Your task to perform on an android device: Go to Reddit.com Image 0: 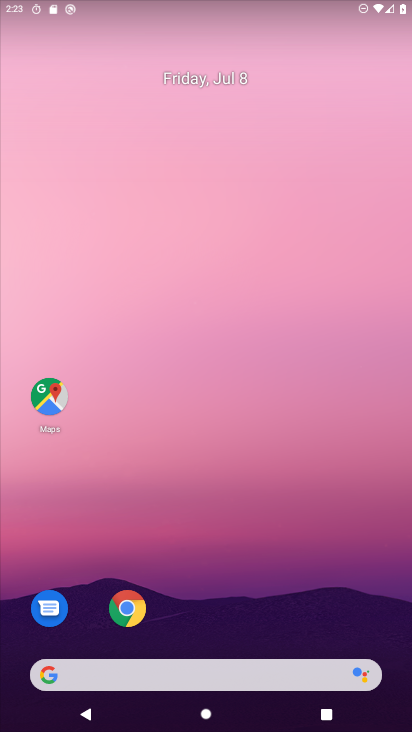
Step 0: click (129, 610)
Your task to perform on an android device: Go to Reddit.com Image 1: 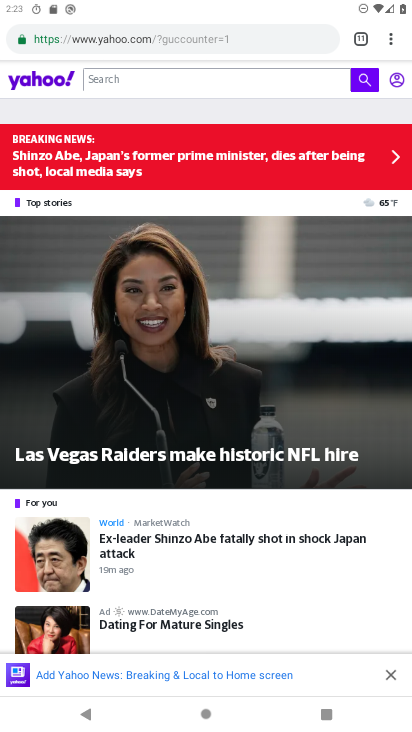
Step 1: click (390, 41)
Your task to perform on an android device: Go to Reddit.com Image 2: 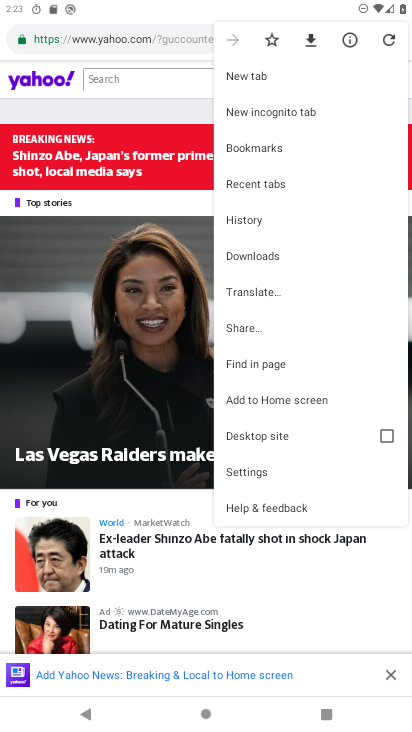
Step 2: click (255, 73)
Your task to perform on an android device: Go to Reddit.com Image 3: 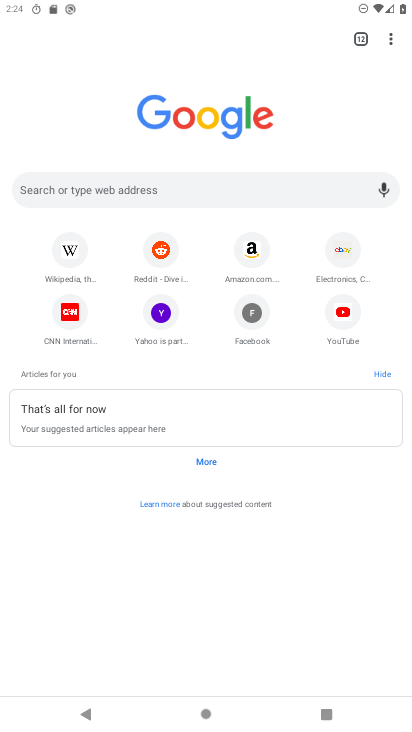
Step 3: click (162, 260)
Your task to perform on an android device: Go to Reddit.com Image 4: 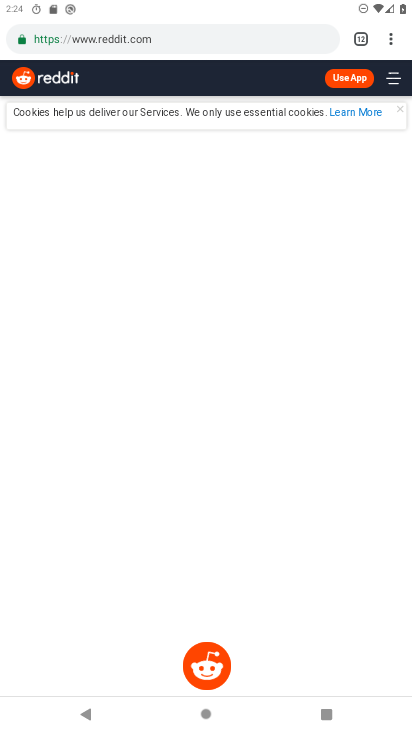
Step 4: task complete